Your task to perform on an android device: Open battery settings Image 0: 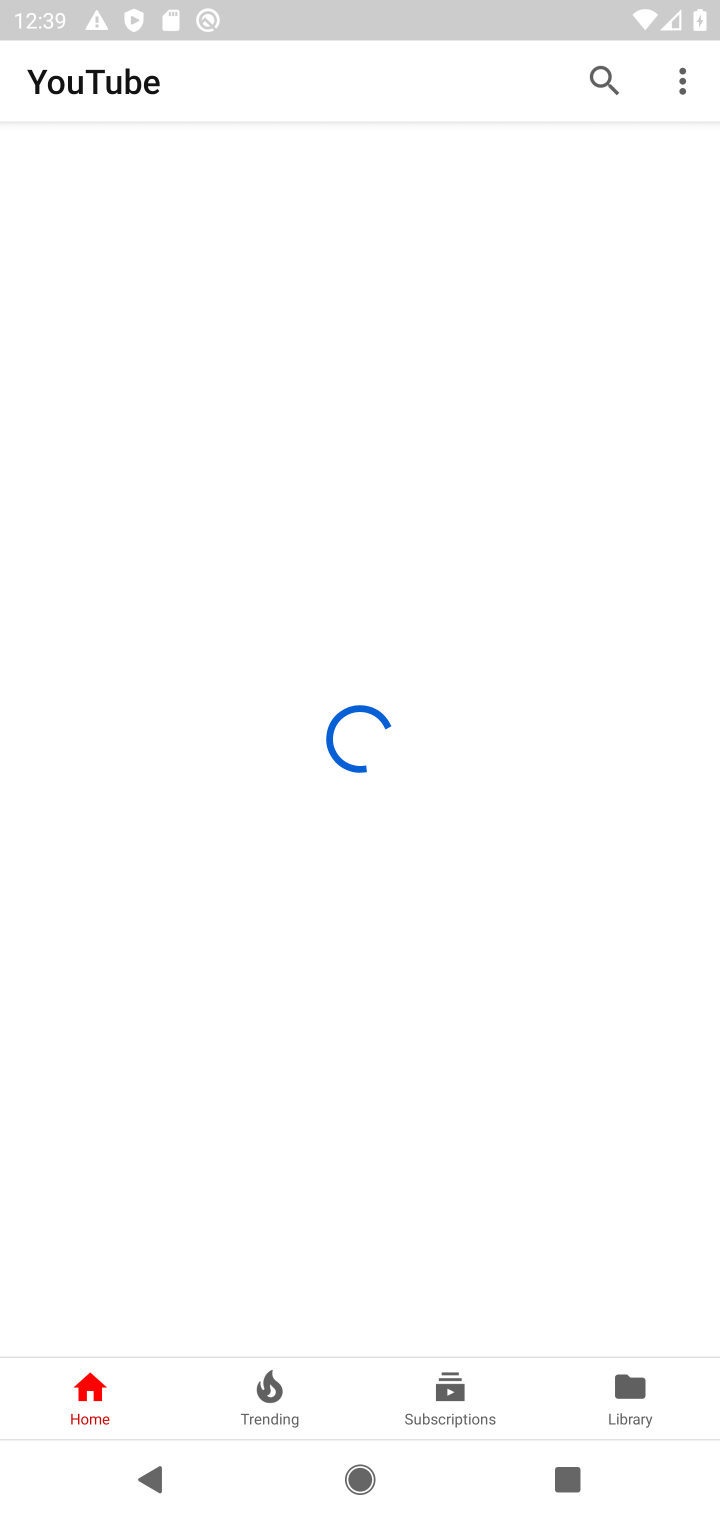
Step 0: press home button
Your task to perform on an android device: Open battery settings Image 1: 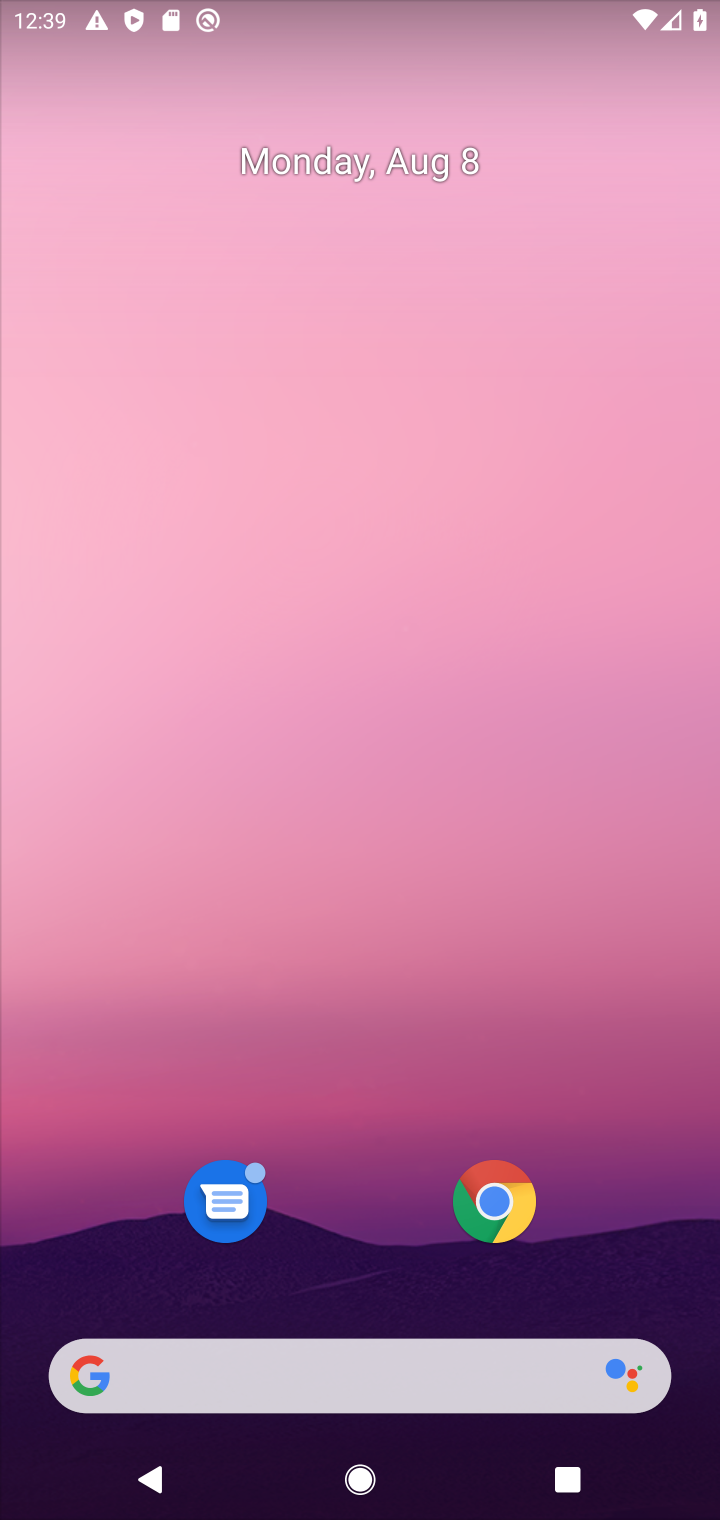
Step 1: drag from (453, 1437) to (192, 299)
Your task to perform on an android device: Open battery settings Image 2: 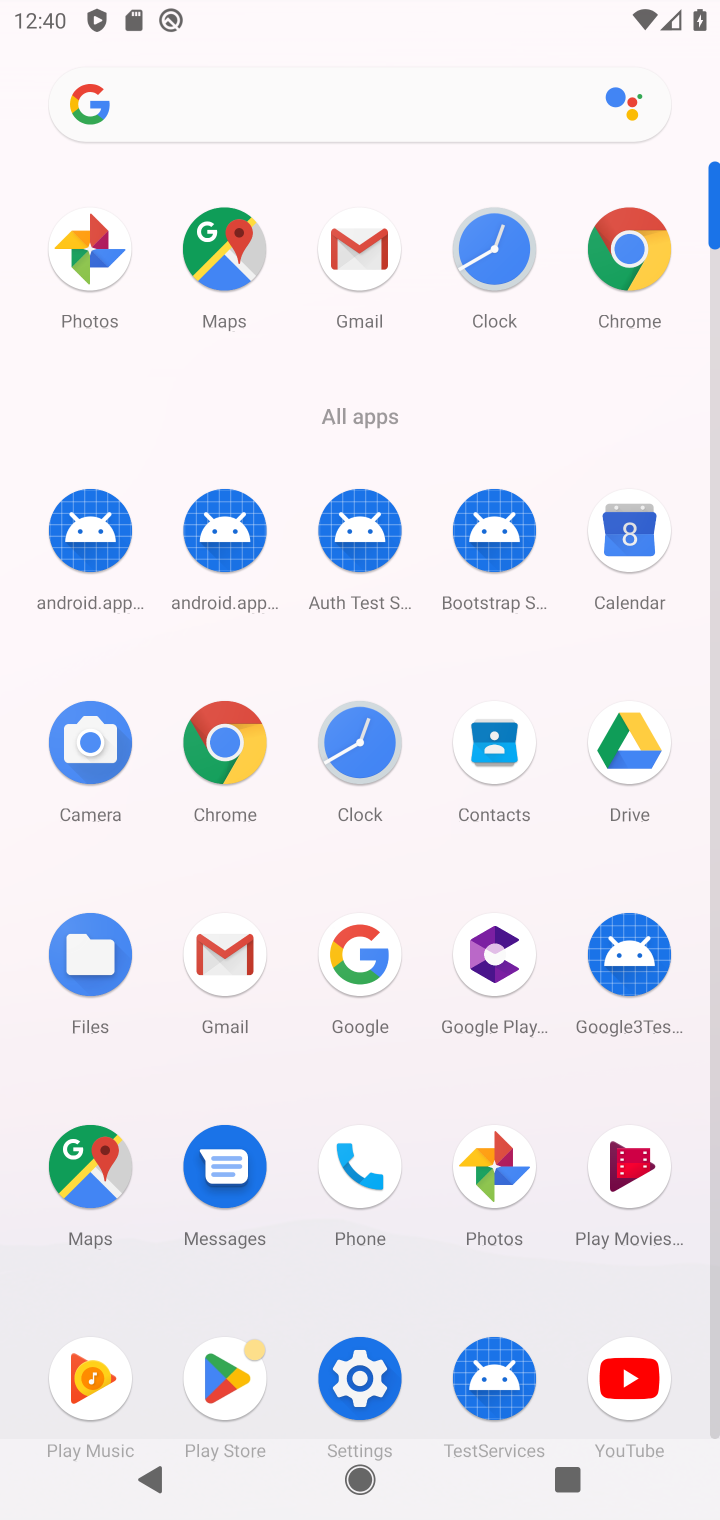
Step 2: click (385, 1352)
Your task to perform on an android device: Open battery settings Image 3: 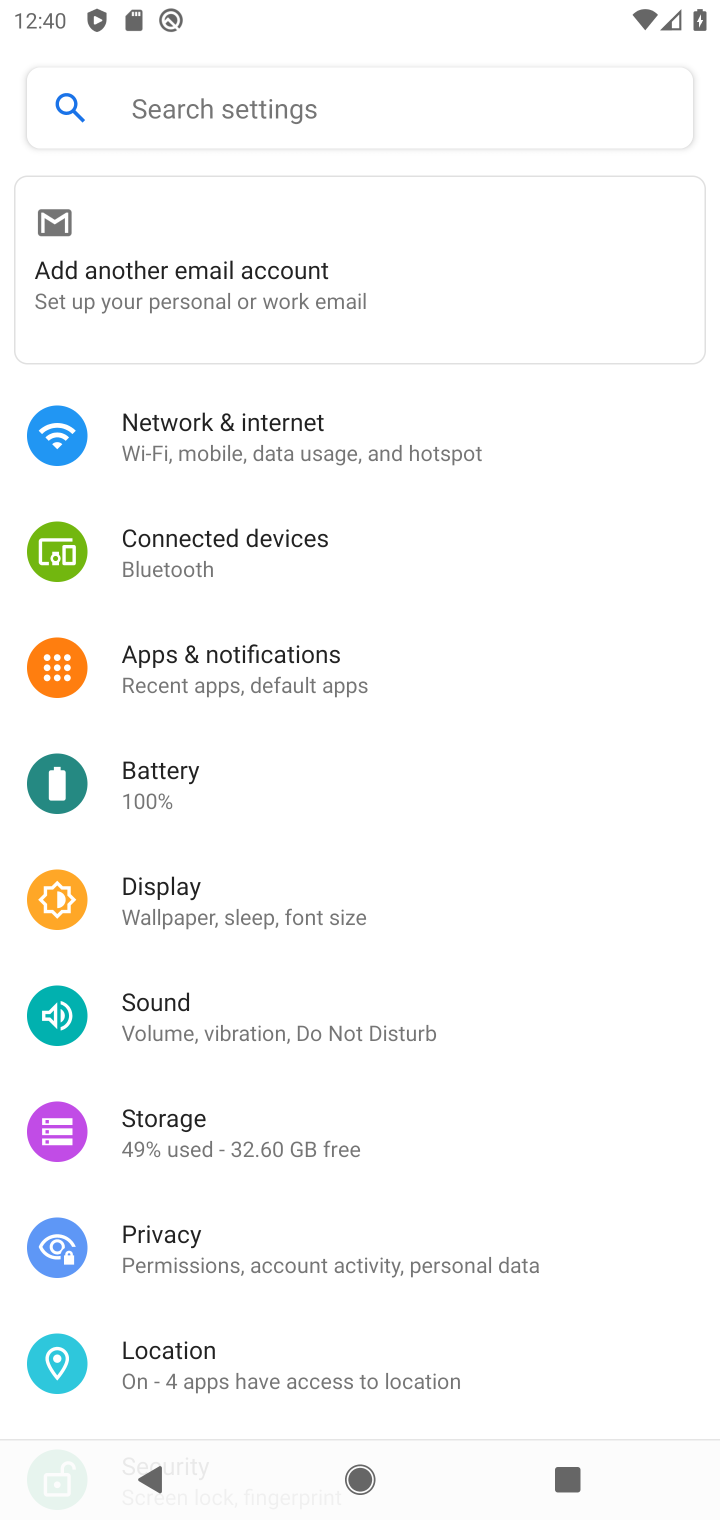
Step 3: click (228, 806)
Your task to perform on an android device: Open battery settings Image 4: 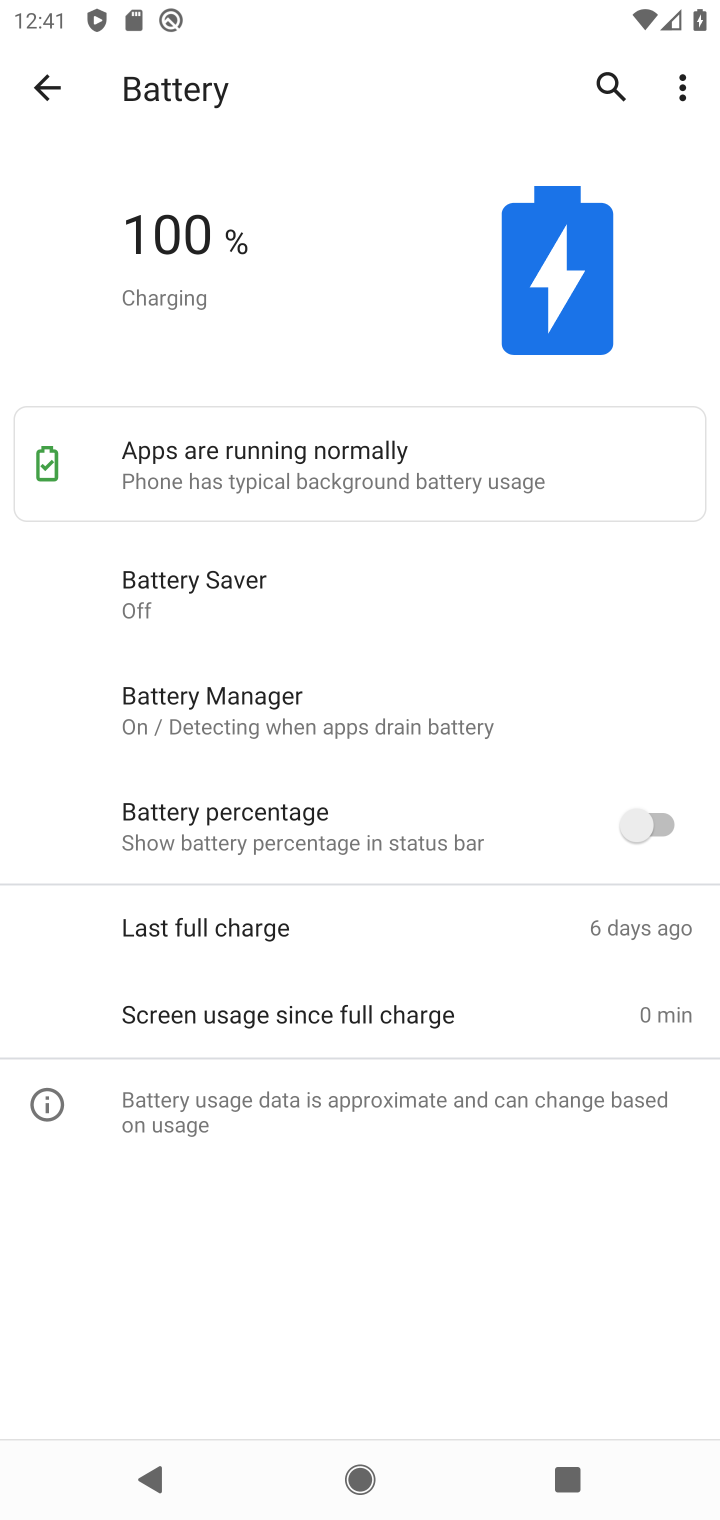
Step 4: task complete